Your task to perform on an android device: add a contact in the contacts app Image 0: 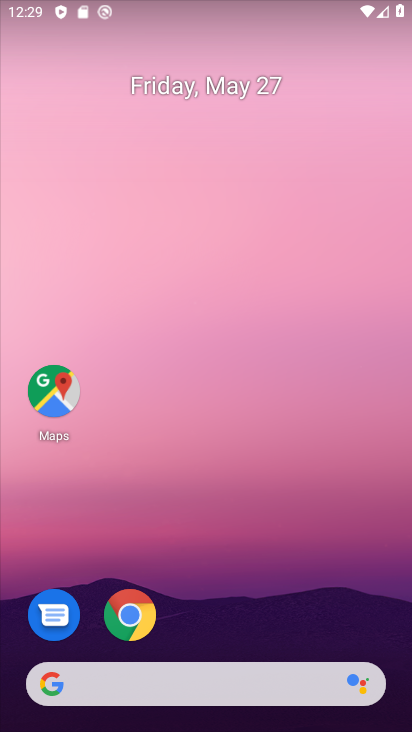
Step 0: drag from (263, 613) to (293, 124)
Your task to perform on an android device: add a contact in the contacts app Image 1: 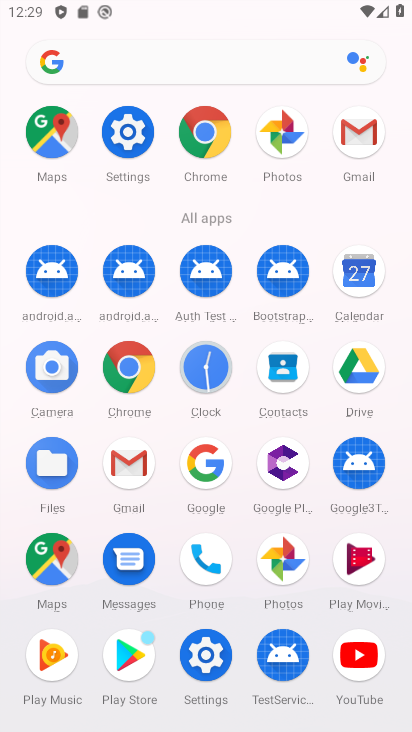
Step 1: click (287, 381)
Your task to perform on an android device: add a contact in the contacts app Image 2: 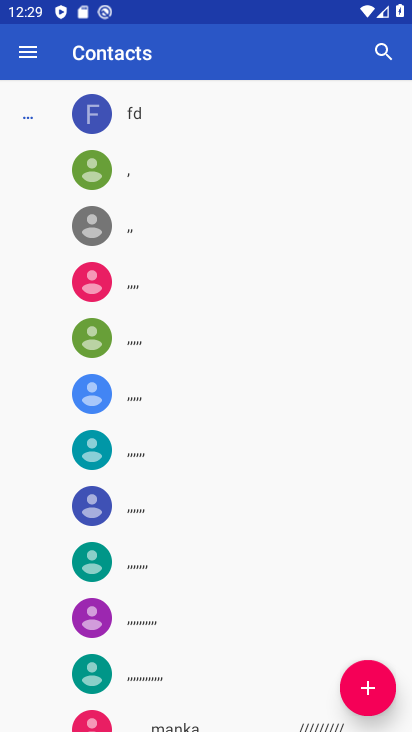
Step 2: click (371, 678)
Your task to perform on an android device: add a contact in the contacts app Image 3: 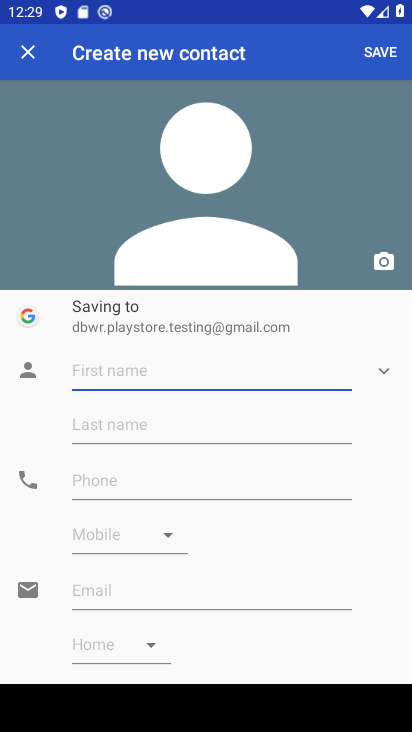
Step 3: click (155, 375)
Your task to perform on an android device: add a contact in the contacts app Image 4: 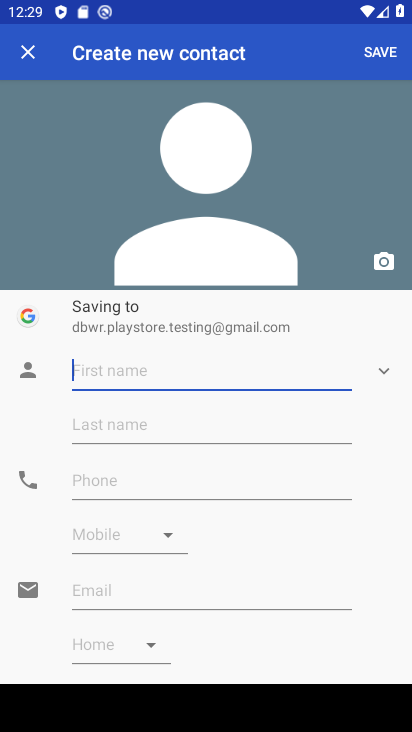
Step 4: type "jhhjhfjh"
Your task to perform on an android device: add a contact in the contacts app Image 5: 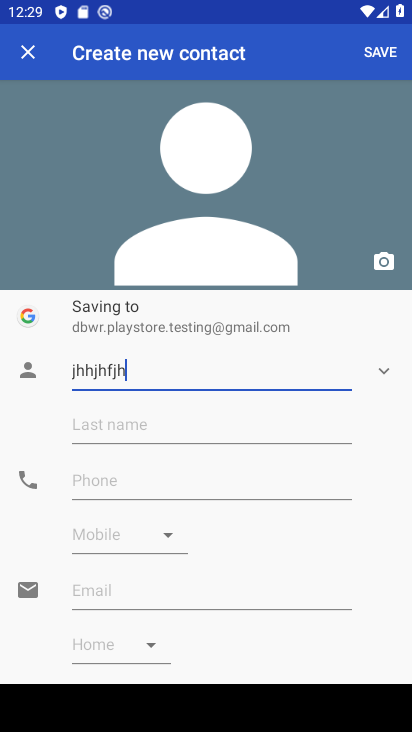
Step 5: type ""
Your task to perform on an android device: add a contact in the contacts app Image 6: 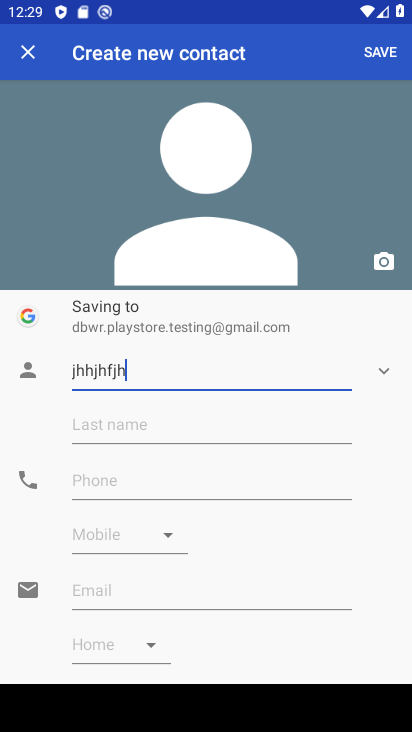
Step 6: click (394, 57)
Your task to perform on an android device: add a contact in the contacts app Image 7: 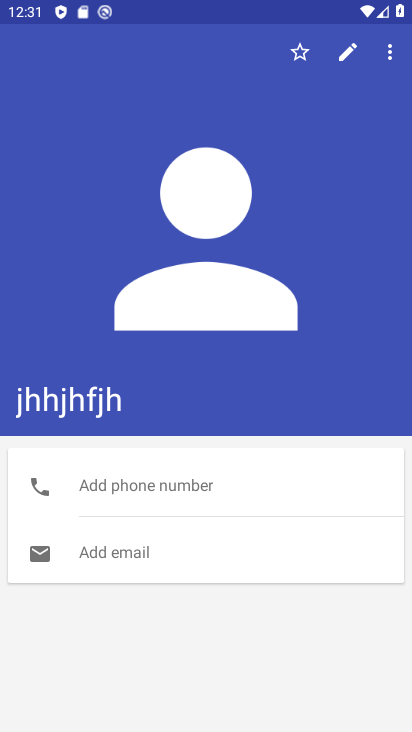
Step 7: task complete